Your task to perform on an android device: turn on the 12-hour format for clock Image 0: 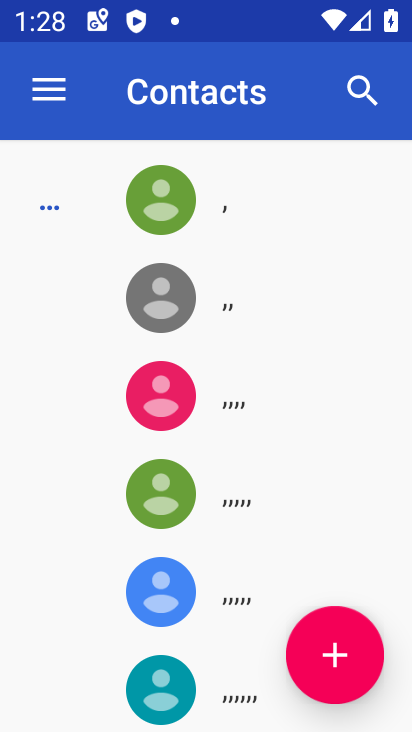
Step 0: press home button
Your task to perform on an android device: turn on the 12-hour format for clock Image 1: 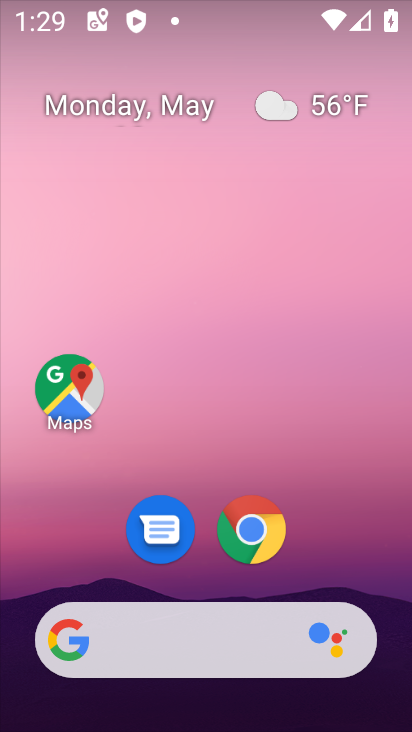
Step 1: drag from (212, 589) to (191, 32)
Your task to perform on an android device: turn on the 12-hour format for clock Image 2: 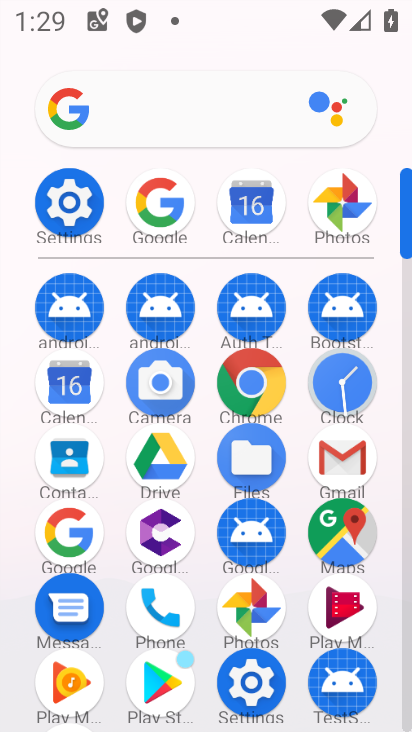
Step 2: click (333, 381)
Your task to perform on an android device: turn on the 12-hour format for clock Image 3: 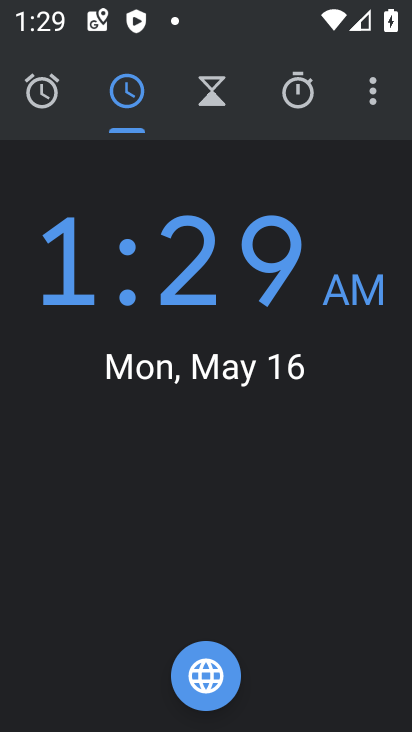
Step 3: click (362, 104)
Your task to perform on an android device: turn on the 12-hour format for clock Image 4: 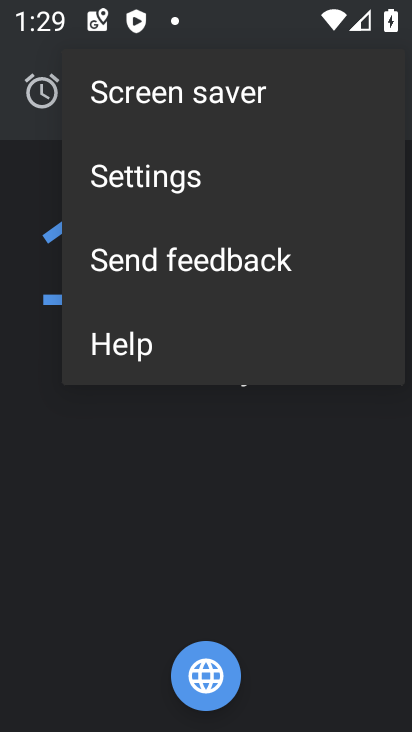
Step 4: click (206, 185)
Your task to perform on an android device: turn on the 12-hour format for clock Image 5: 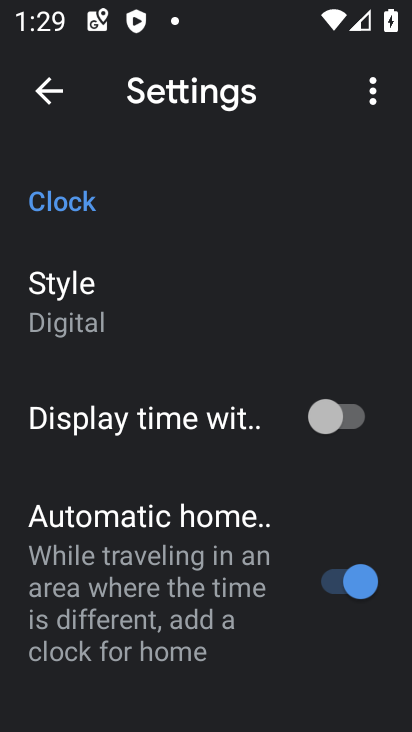
Step 5: drag from (208, 635) to (216, 211)
Your task to perform on an android device: turn on the 12-hour format for clock Image 6: 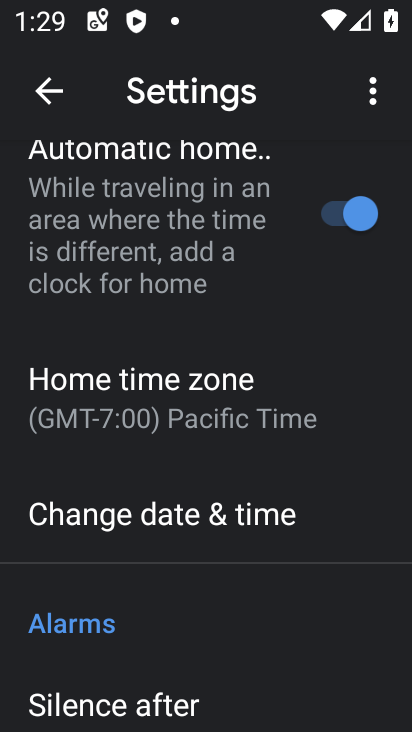
Step 6: drag from (216, 576) to (252, 310)
Your task to perform on an android device: turn on the 12-hour format for clock Image 7: 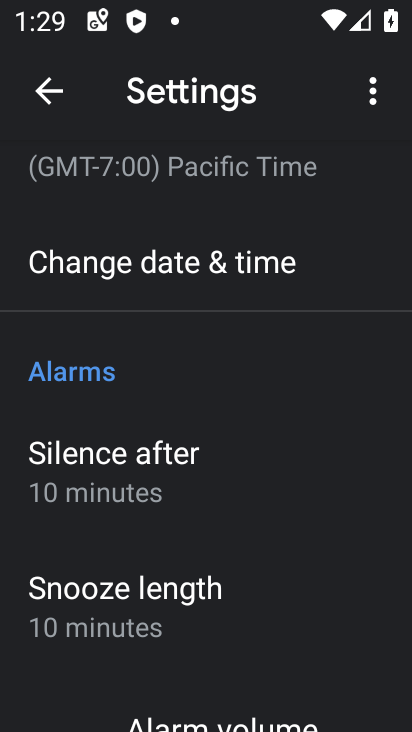
Step 7: click (226, 268)
Your task to perform on an android device: turn on the 12-hour format for clock Image 8: 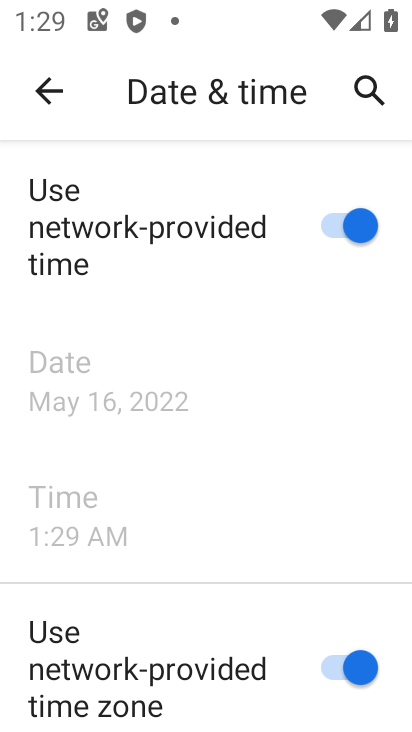
Step 8: task complete